Your task to perform on an android device: Open eBay Image 0: 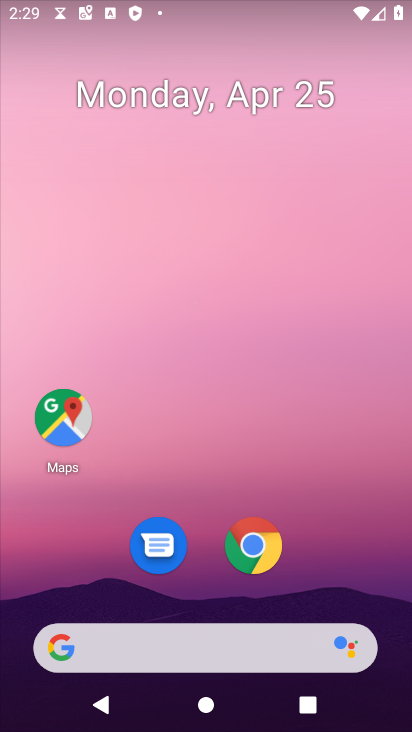
Step 0: click (238, 567)
Your task to perform on an android device: Open eBay Image 1: 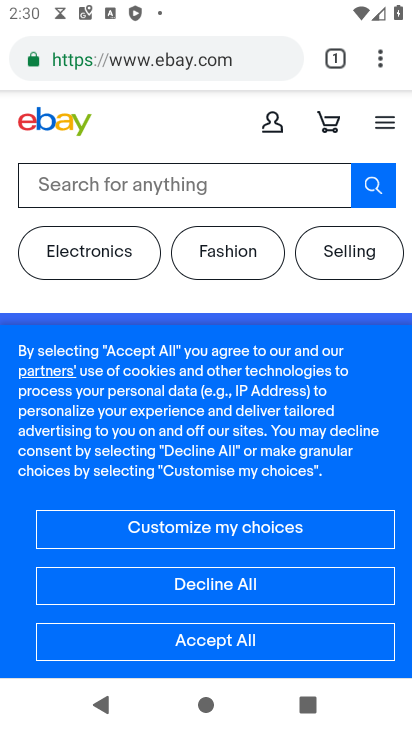
Step 1: task complete